Your task to perform on an android device: turn on bluetooth scan Image 0: 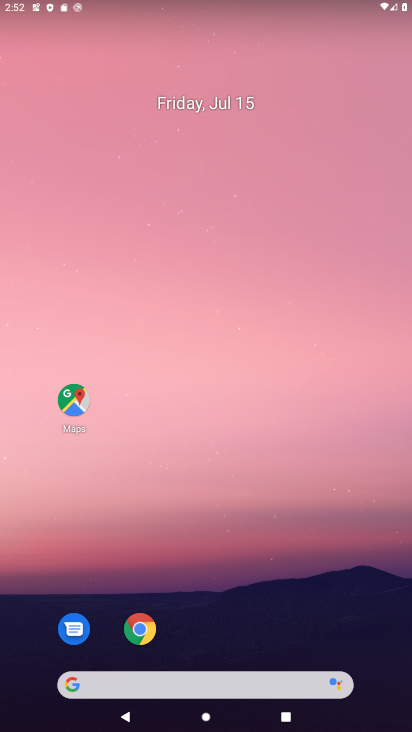
Step 0: drag from (255, 665) to (226, 0)
Your task to perform on an android device: turn on bluetooth scan Image 1: 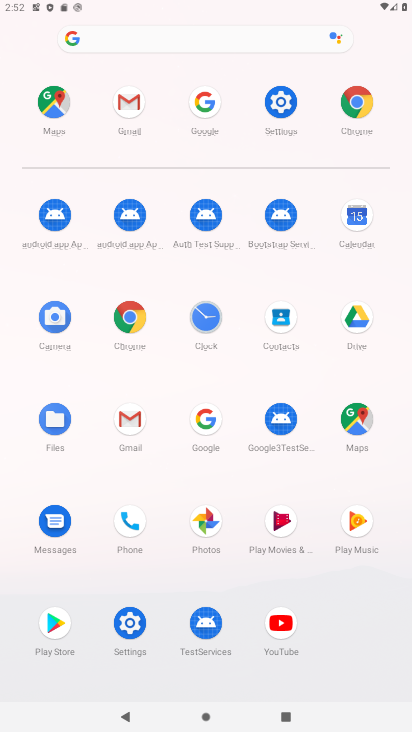
Step 1: click (284, 112)
Your task to perform on an android device: turn on bluetooth scan Image 2: 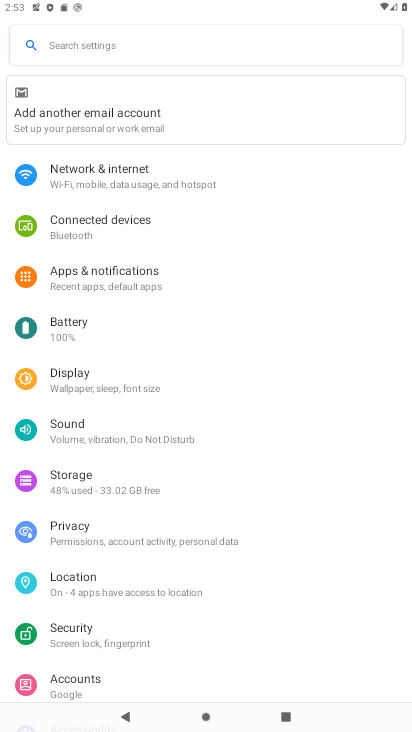
Step 2: click (71, 583)
Your task to perform on an android device: turn on bluetooth scan Image 3: 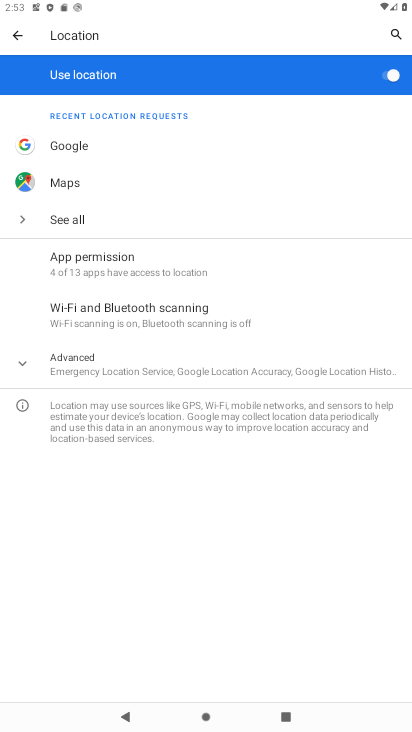
Step 3: click (130, 321)
Your task to perform on an android device: turn on bluetooth scan Image 4: 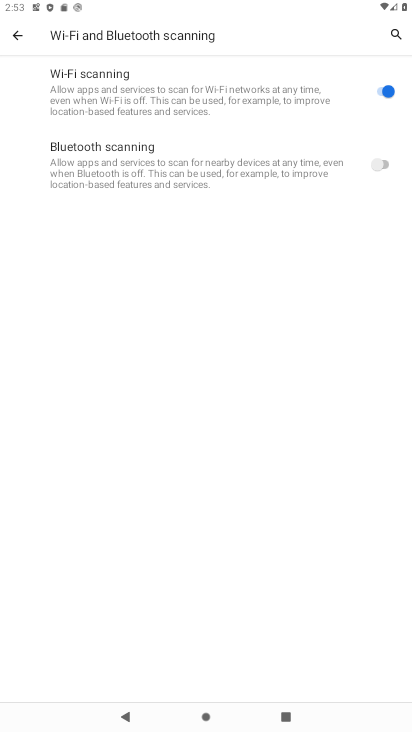
Step 4: click (385, 162)
Your task to perform on an android device: turn on bluetooth scan Image 5: 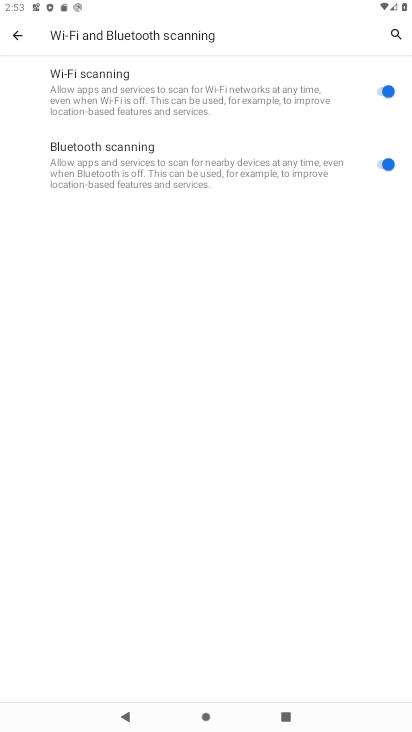
Step 5: task complete